Your task to perform on an android device: Go to Android settings Image 0: 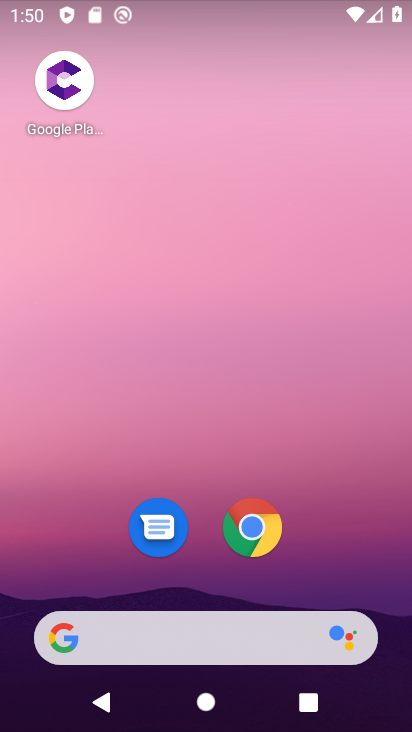
Step 0: drag from (381, 572) to (396, 97)
Your task to perform on an android device: Go to Android settings Image 1: 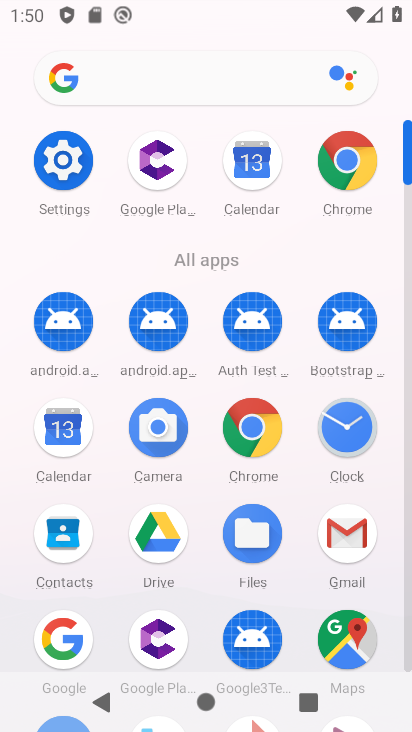
Step 1: click (64, 172)
Your task to perform on an android device: Go to Android settings Image 2: 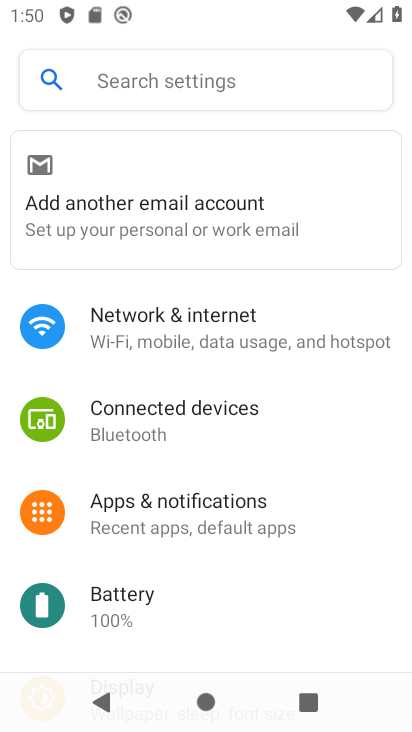
Step 2: drag from (273, 638) to (274, 244)
Your task to perform on an android device: Go to Android settings Image 3: 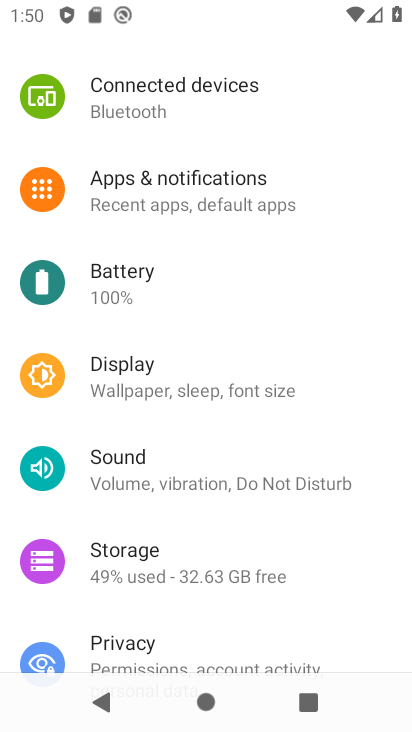
Step 3: drag from (315, 574) to (329, 238)
Your task to perform on an android device: Go to Android settings Image 4: 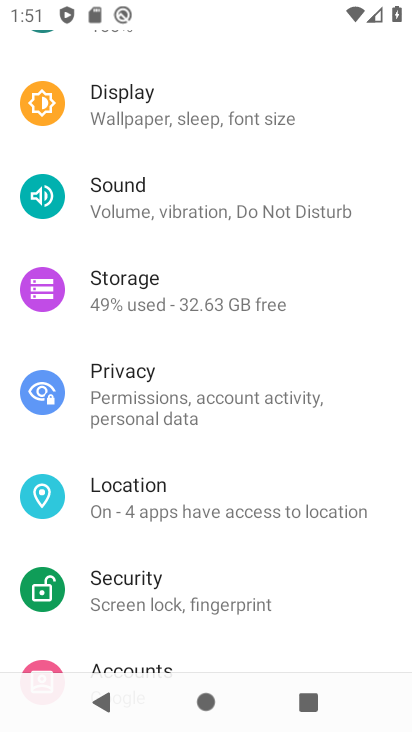
Step 4: drag from (336, 595) to (312, 224)
Your task to perform on an android device: Go to Android settings Image 5: 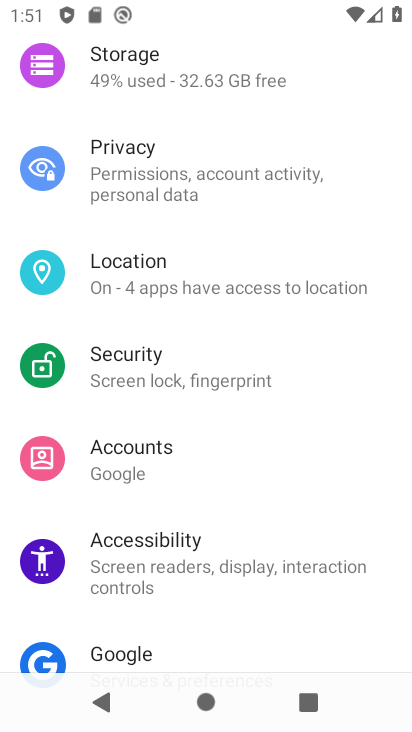
Step 5: drag from (314, 626) to (364, 228)
Your task to perform on an android device: Go to Android settings Image 6: 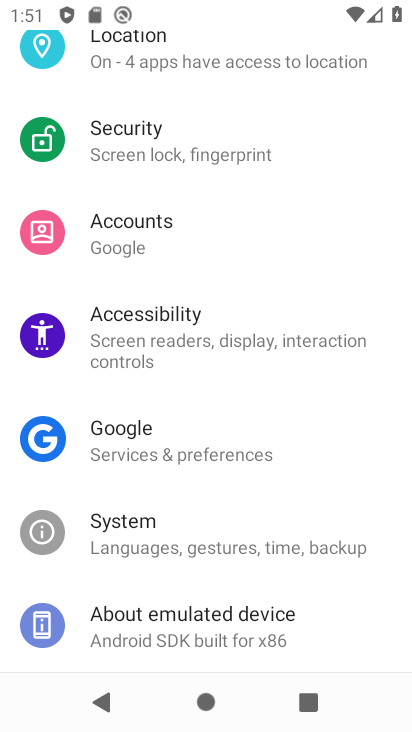
Step 6: click (259, 616)
Your task to perform on an android device: Go to Android settings Image 7: 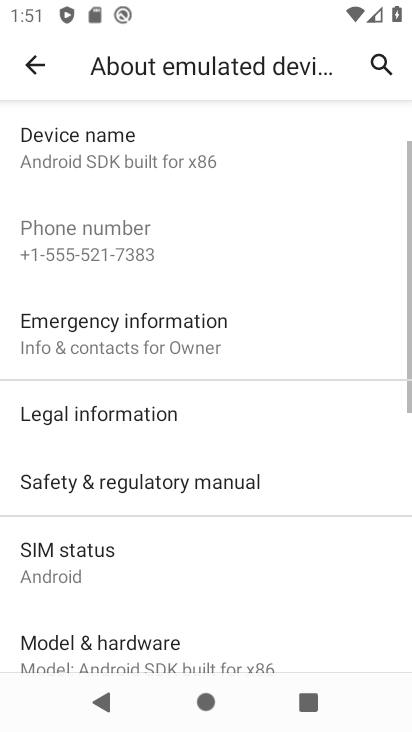
Step 7: task complete